Your task to perform on an android device: Go to calendar. Show me events next week Image 0: 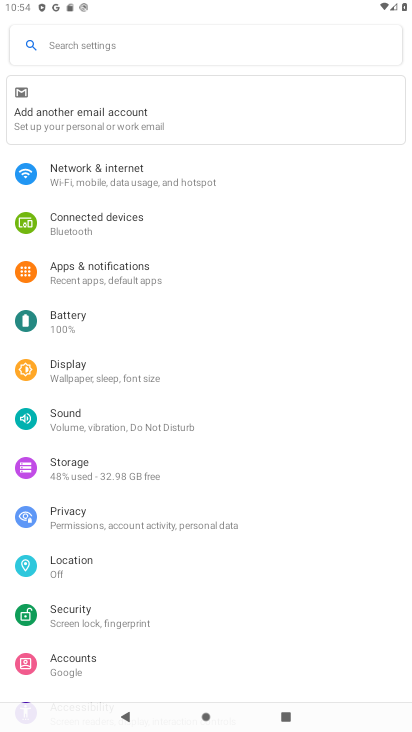
Step 0: press home button
Your task to perform on an android device: Go to calendar. Show me events next week Image 1: 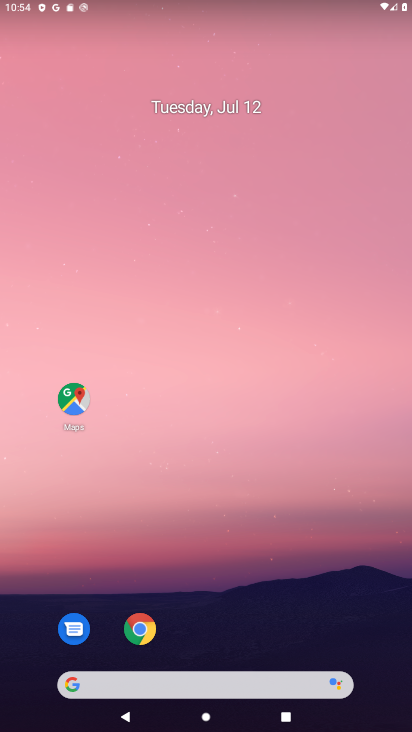
Step 1: drag from (190, 628) to (211, 324)
Your task to perform on an android device: Go to calendar. Show me events next week Image 2: 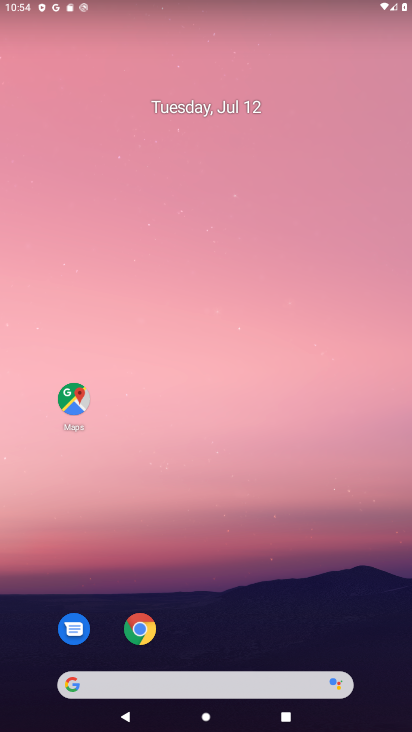
Step 2: drag from (173, 642) to (208, 188)
Your task to perform on an android device: Go to calendar. Show me events next week Image 3: 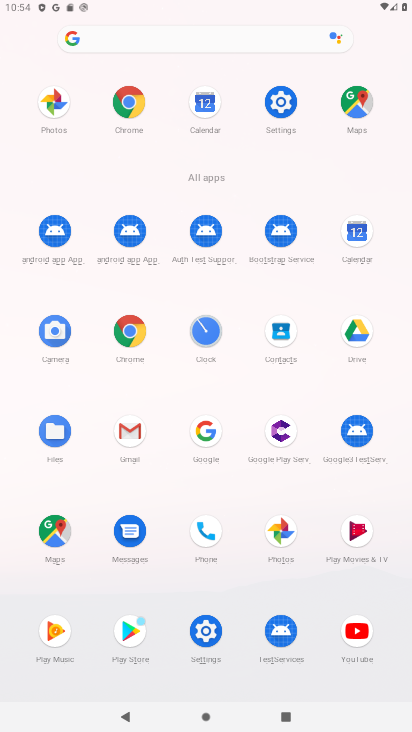
Step 3: click (354, 235)
Your task to perform on an android device: Go to calendar. Show me events next week Image 4: 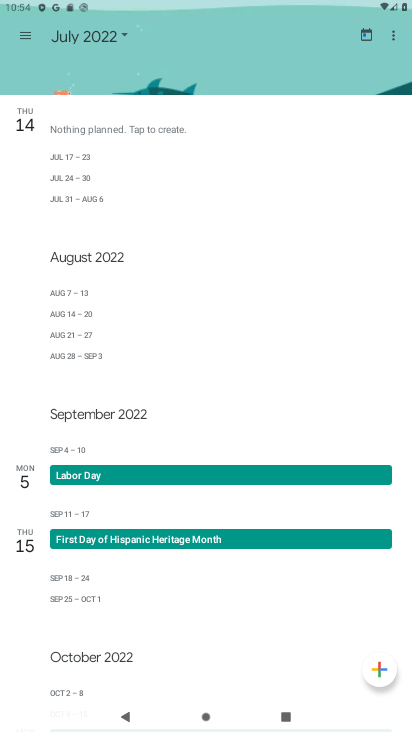
Step 4: click (20, 33)
Your task to perform on an android device: Go to calendar. Show me events next week Image 5: 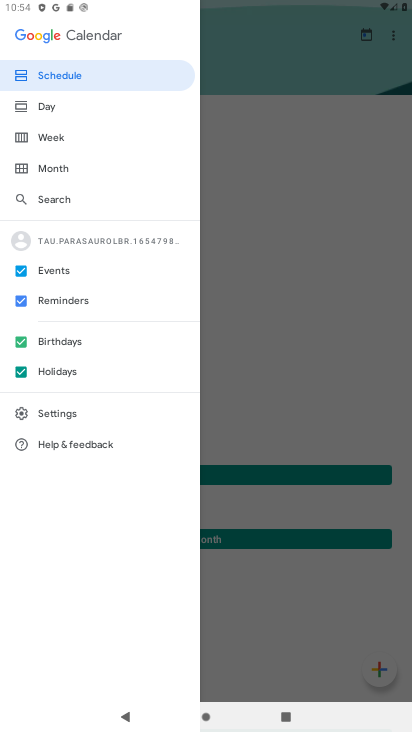
Step 5: click (44, 141)
Your task to perform on an android device: Go to calendar. Show me events next week Image 6: 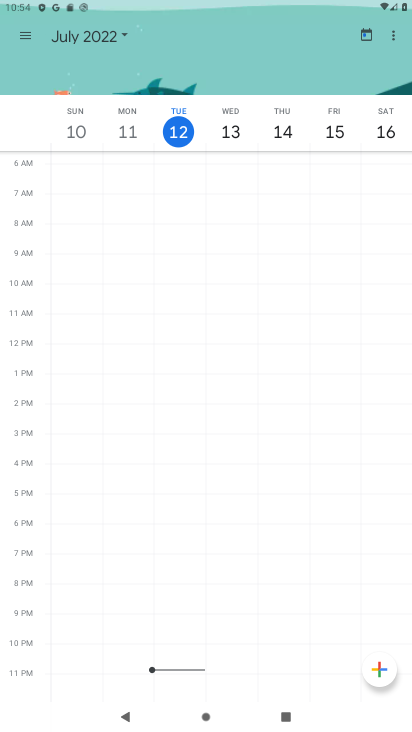
Step 6: task complete